Your task to perform on an android device: Open Chrome and go to settings Image 0: 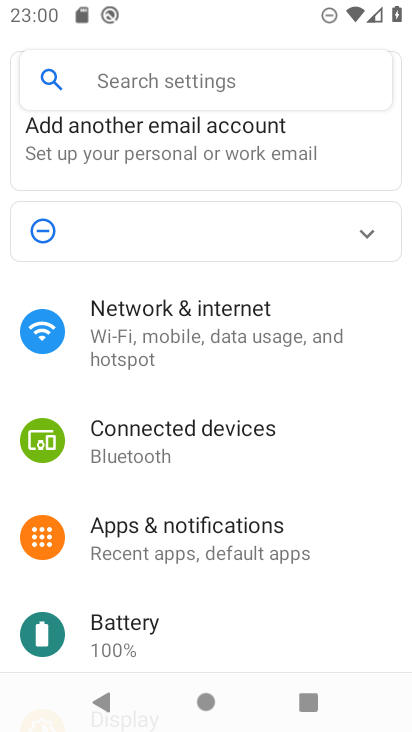
Step 0: press home button
Your task to perform on an android device: Open Chrome and go to settings Image 1: 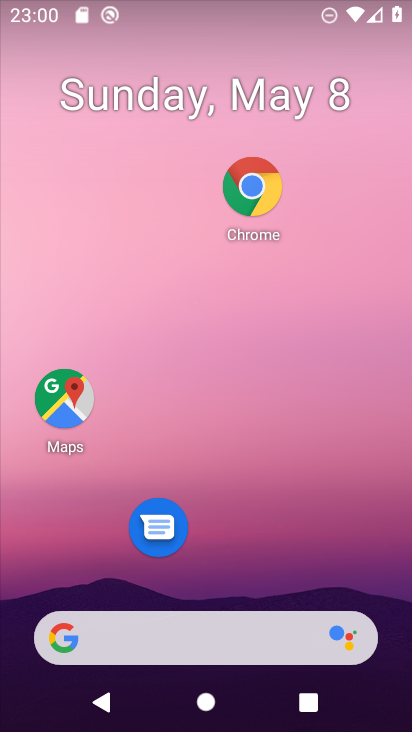
Step 1: drag from (254, 525) to (256, 316)
Your task to perform on an android device: Open Chrome and go to settings Image 2: 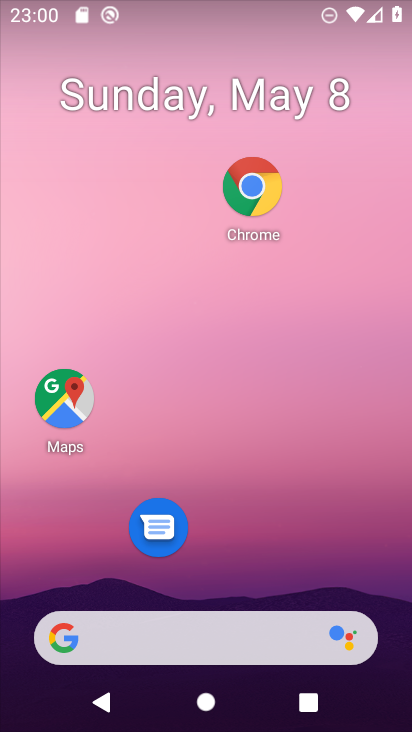
Step 2: drag from (257, 535) to (323, 336)
Your task to perform on an android device: Open Chrome and go to settings Image 3: 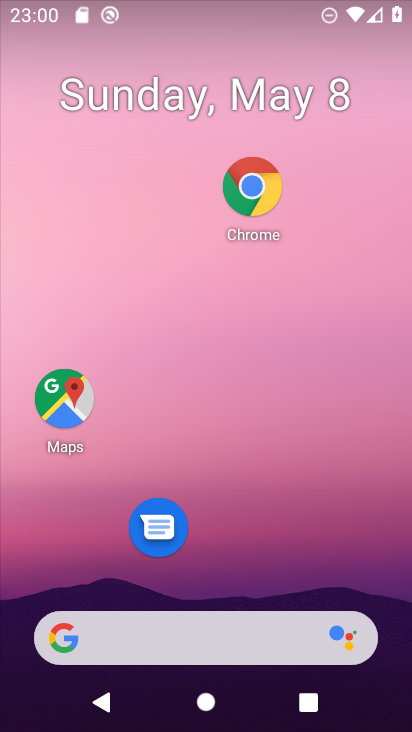
Step 3: drag from (221, 539) to (278, 235)
Your task to perform on an android device: Open Chrome and go to settings Image 4: 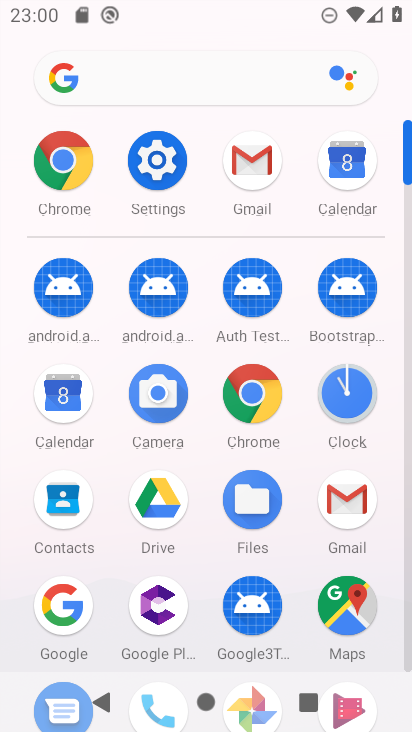
Step 4: click (49, 154)
Your task to perform on an android device: Open Chrome and go to settings Image 5: 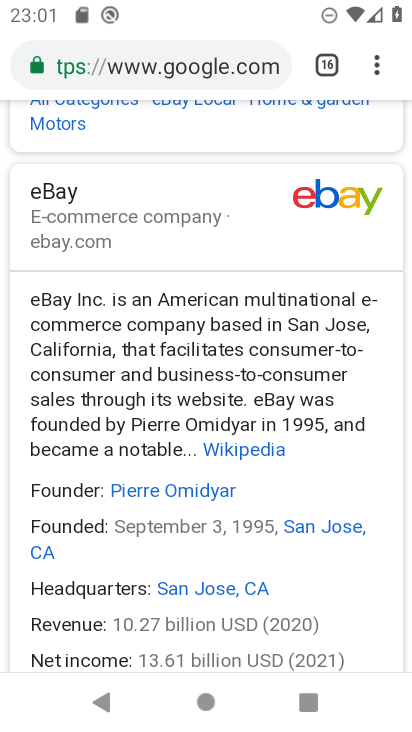
Step 5: click (368, 65)
Your task to perform on an android device: Open Chrome and go to settings Image 6: 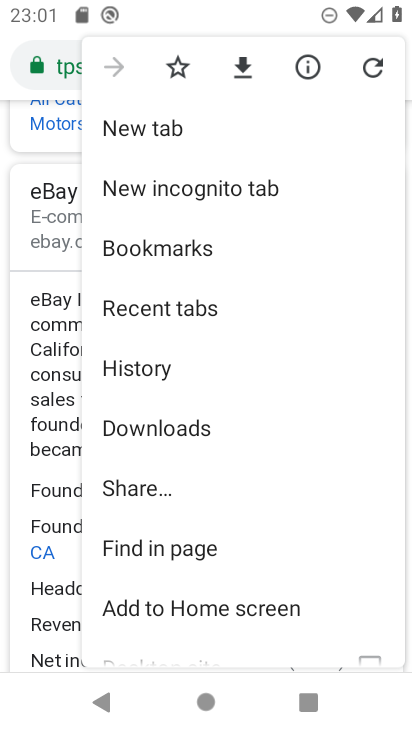
Step 6: drag from (225, 545) to (256, 291)
Your task to perform on an android device: Open Chrome and go to settings Image 7: 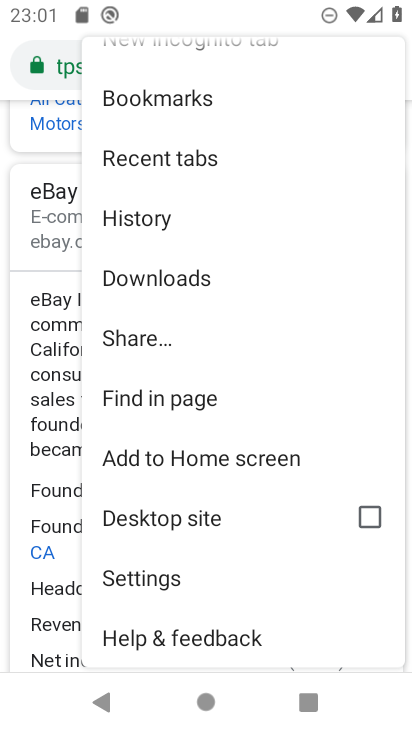
Step 7: click (202, 574)
Your task to perform on an android device: Open Chrome and go to settings Image 8: 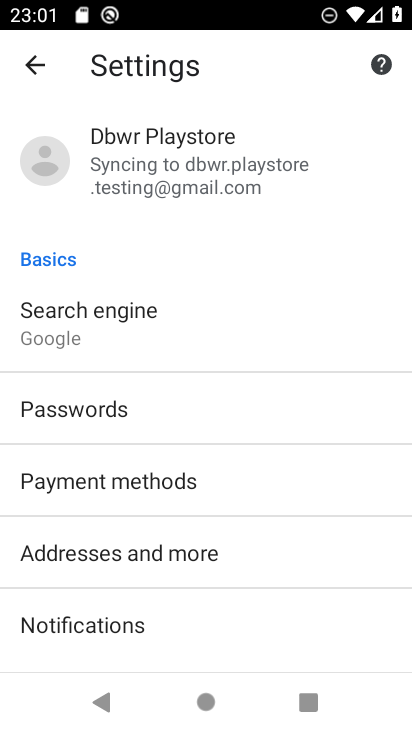
Step 8: task complete